Your task to perform on an android device: Open settings Image 0: 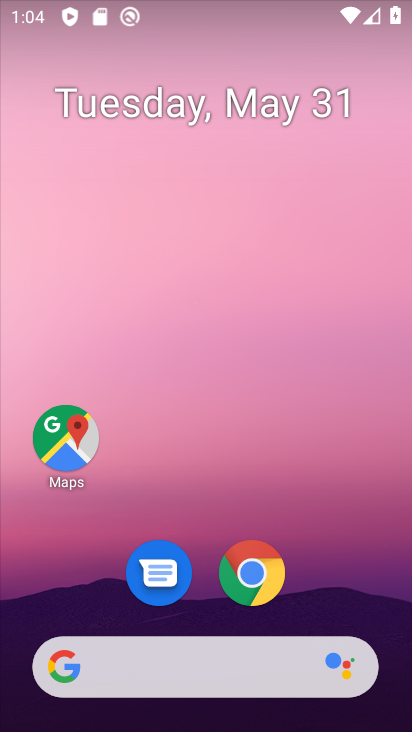
Step 0: drag from (351, 598) to (356, 140)
Your task to perform on an android device: Open settings Image 1: 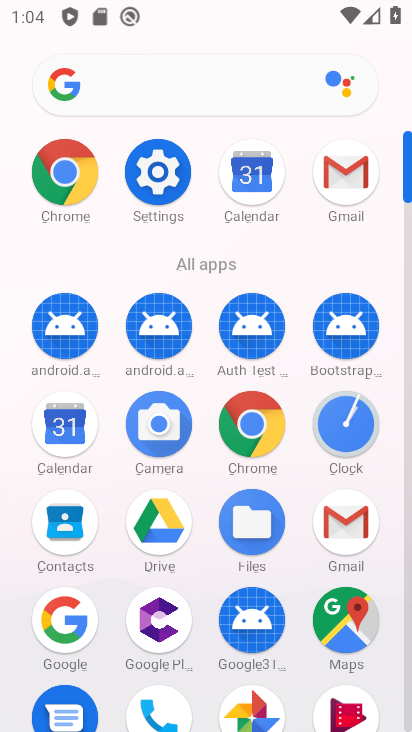
Step 1: click (157, 177)
Your task to perform on an android device: Open settings Image 2: 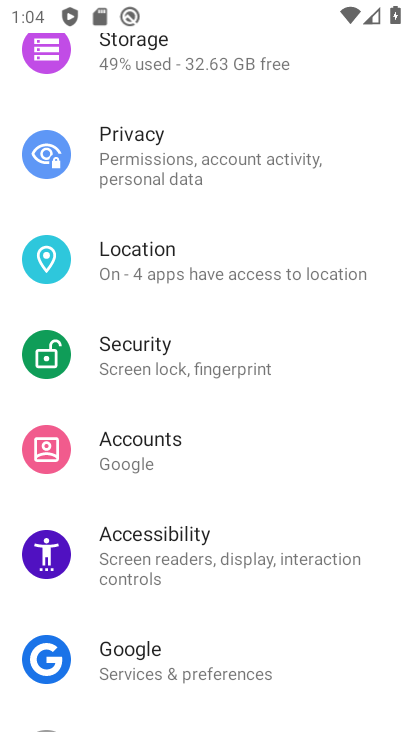
Step 2: task complete